Your task to perform on an android device: What's the weather going to be tomorrow? Image 0: 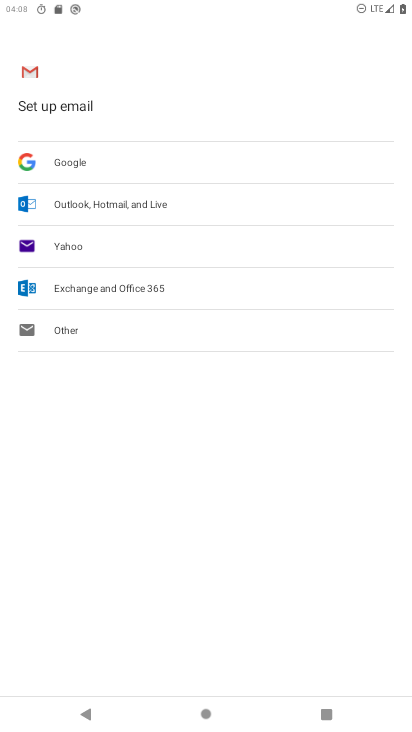
Step 0: press home button
Your task to perform on an android device: What's the weather going to be tomorrow? Image 1: 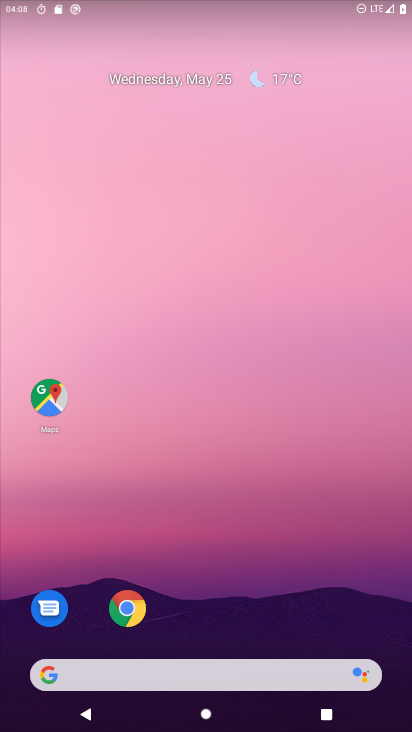
Step 1: click (281, 79)
Your task to perform on an android device: What's the weather going to be tomorrow? Image 2: 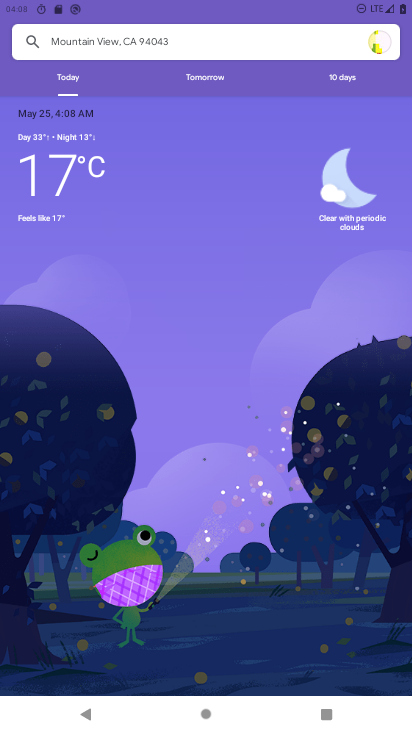
Step 2: click (188, 92)
Your task to perform on an android device: What's the weather going to be tomorrow? Image 3: 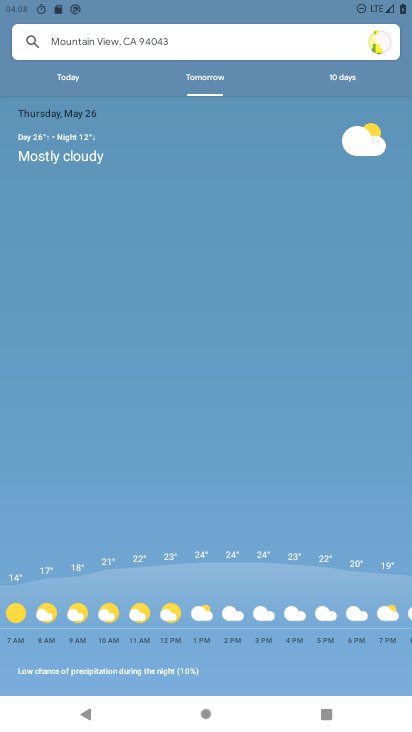
Step 3: task complete